Your task to perform on an android device: Show the shopping cart on ebay.com. Image 0: 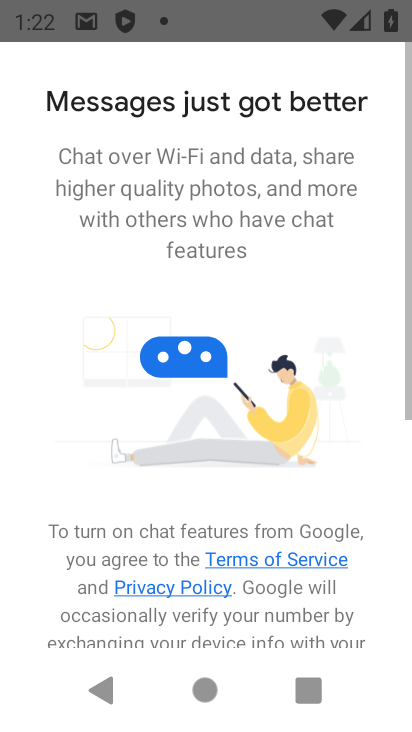
Step 0: click (203, 35)
Your task to perform on an android device: Show the shopping cart on ebay.com. Image 1: 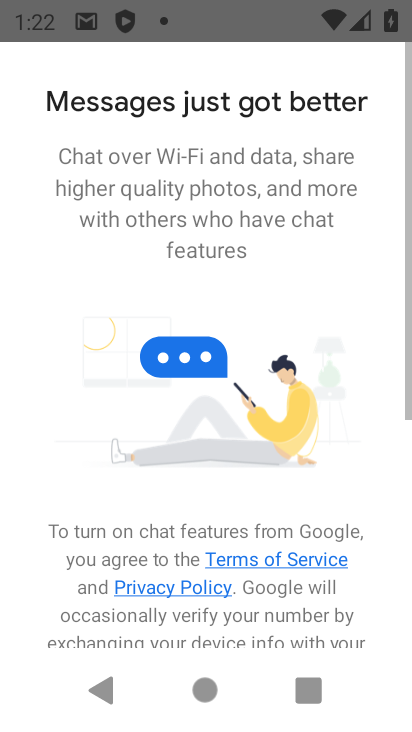
Step 1: press back button
Your task to perform on an android device: Show the shopping cart on ebay.com. Image 2: 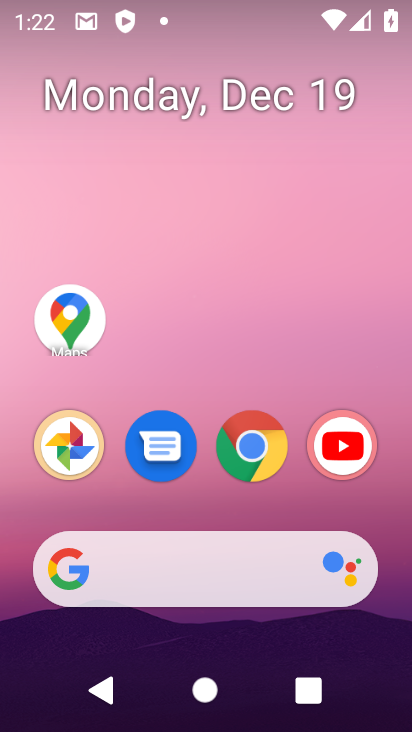
Step 2: click (225, 461)
Your task to perform on an android device: Show the shopping cart on ebay.com. Image 3: 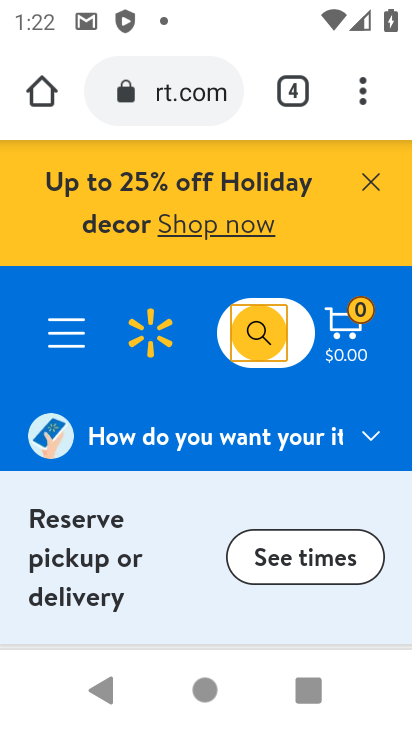
Step 3: click (163, 81)
Your task to perform on an android device: Show the shopping cart on ebay.com. Image 4: 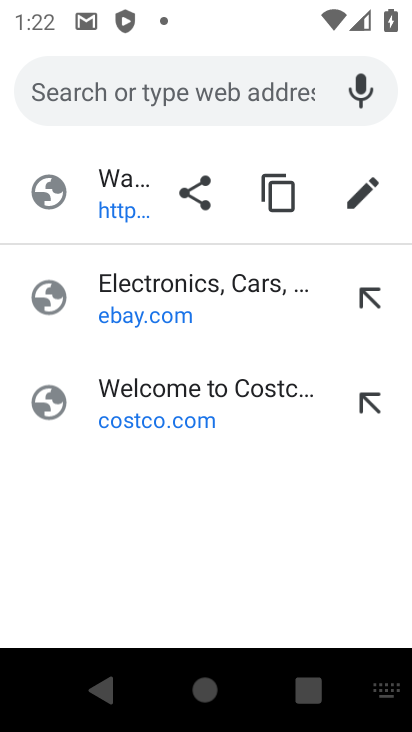
Step 4: type "ebay.com"
Your task to perform on an android device: Show the shopping cart on ebay.com. Image 5: 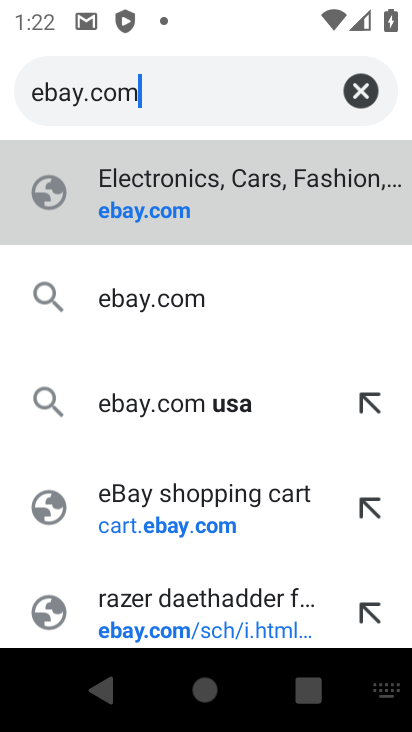
Step 5: click (265, 218)
Your task to perform on an android device: Show the shopping cart on ebay.com. Image 6: 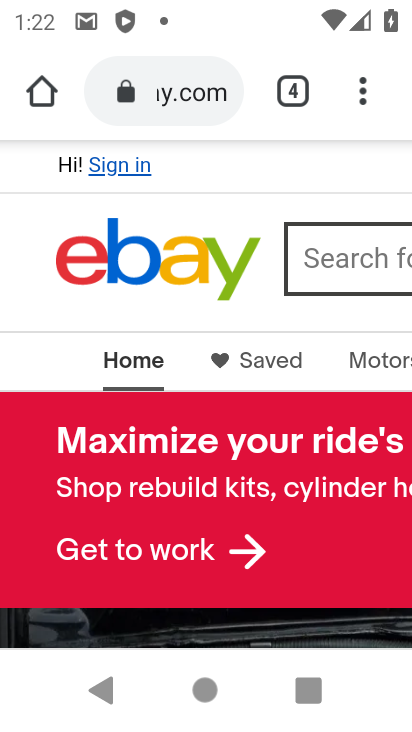
Step 6: click (318, 248)
Your task to perform on an android device: Show the shopping cart on ebay.com. Image 7: 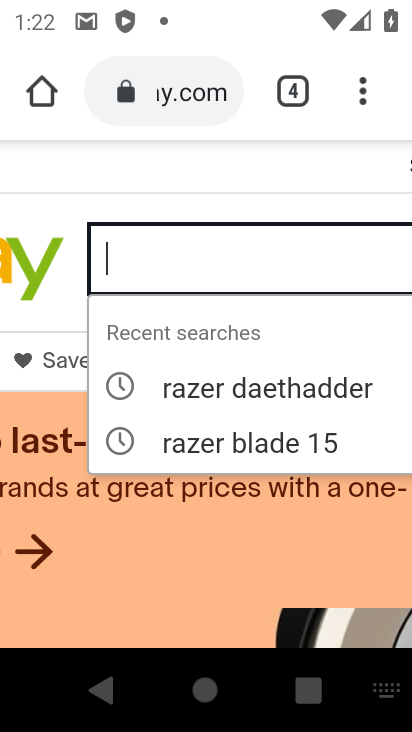
Step 7: drag from (282, 180) to (6, 185)
Your task to perform on an android device: Show the shopping cart on ebay.com. Image 8: 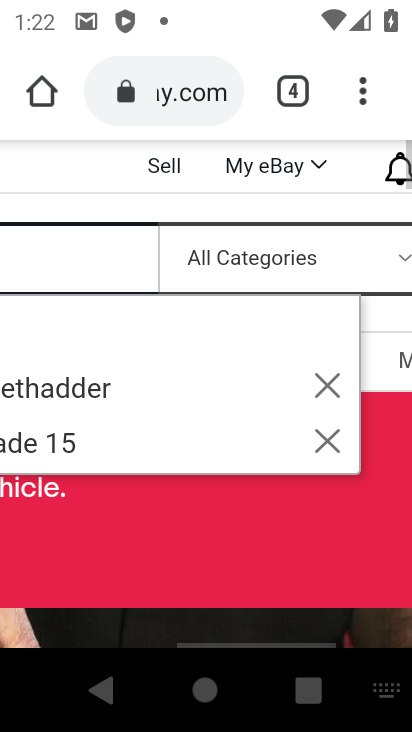
Step 8: drag from (327, 209) to (42, 187)
Your task to perform on an android device: Show the shopping cart on ebay.com. Image 9: 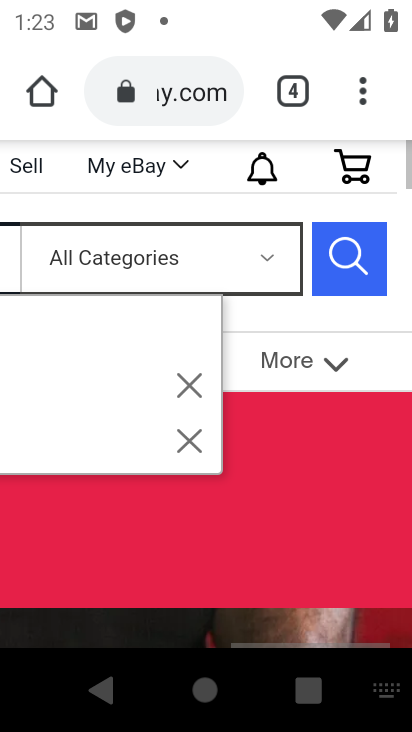
Step 9: click (303, 156)
Your task to perform on an android device: Show the shopping cart on ebay.com. Image 10: 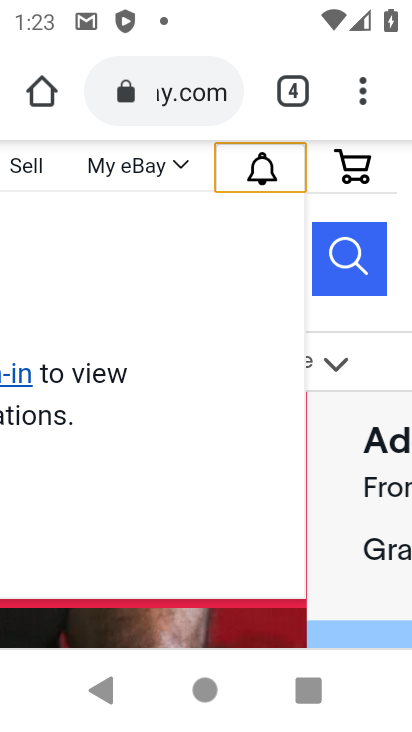
Step 10: task complete